Your task to perform on an android device: turn off location Image 0: 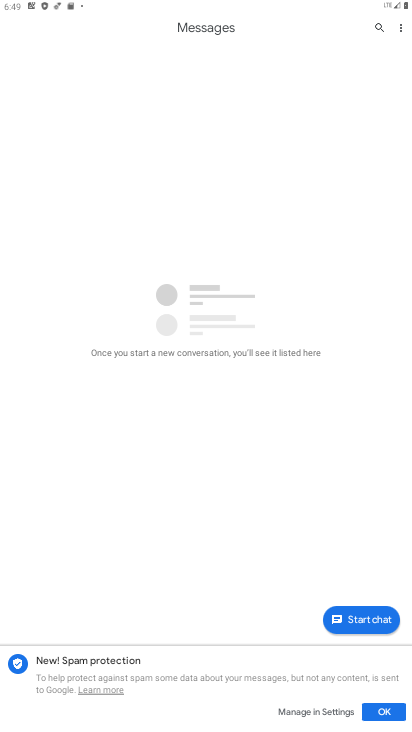
Step 0: drag from (380, 689) to (313, 258)
Your task to perform on an android device: turn off location Image 1: 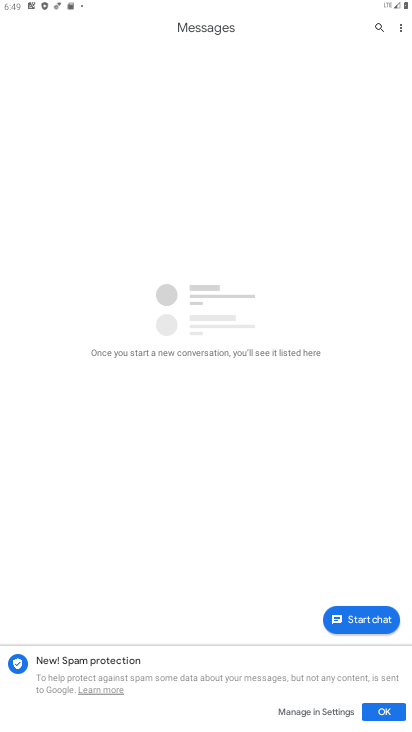
Step 1: press home button
Your task to perform on an android device: turn off location Image 2: 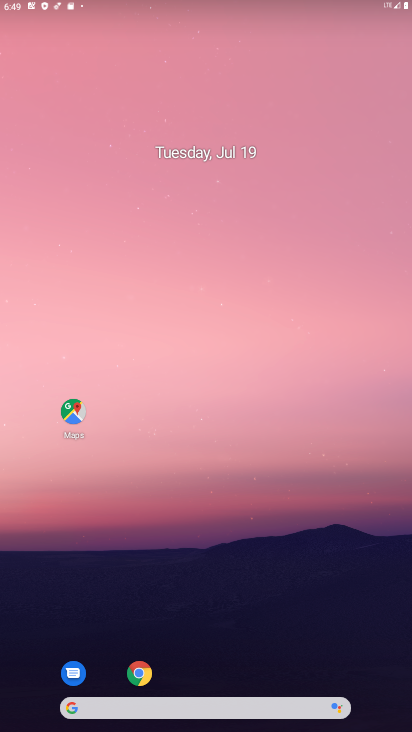
Step 2: drag from (367, 720) to (221, 18)
Your task to perform on an android device: turn off location Image 3: 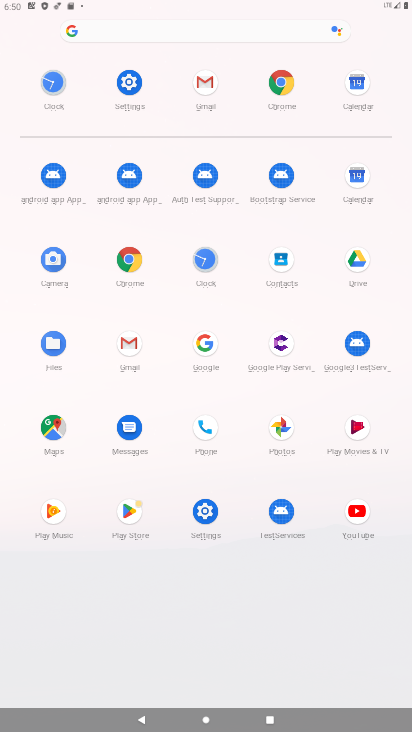
Step 3: click (198, 518)
Your task to perform on an android device: turn off location Image 4: 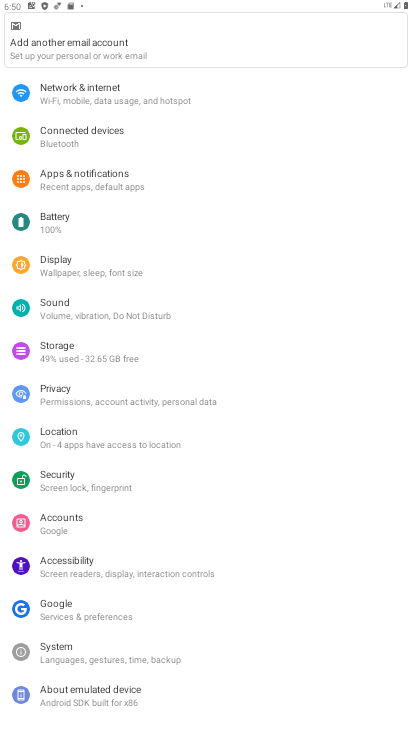
Step 4: click (74, 443)
Your task to perform on an android device: turn off location Image 5: 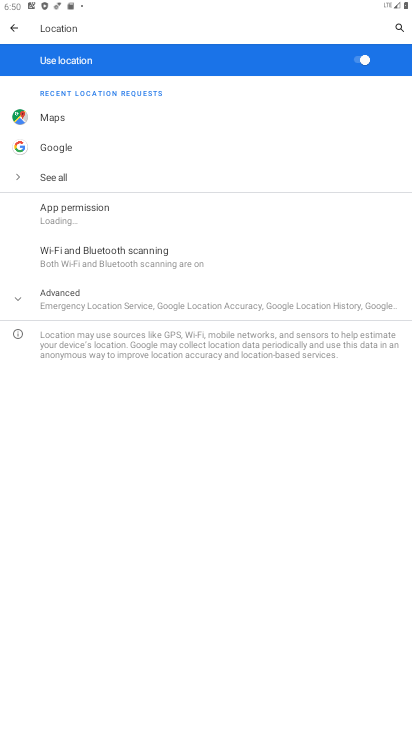
Step 5: click (328, 60)
Your task to perform on an android device: turn off location Image 6: 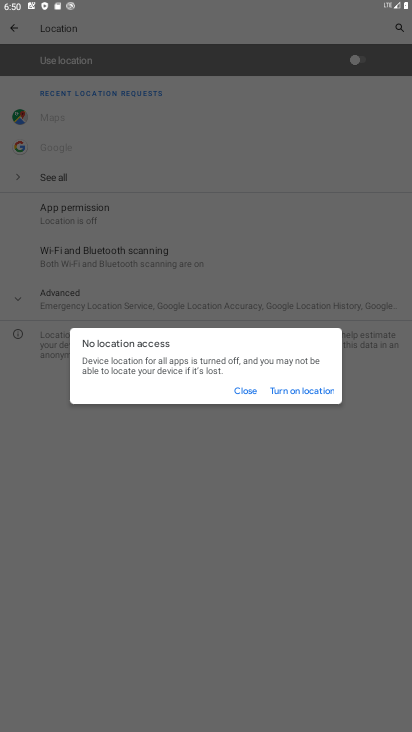
Step 6: task complete